Your task to perform on an android device: delete the emails in spam in the gmail app Image 0: 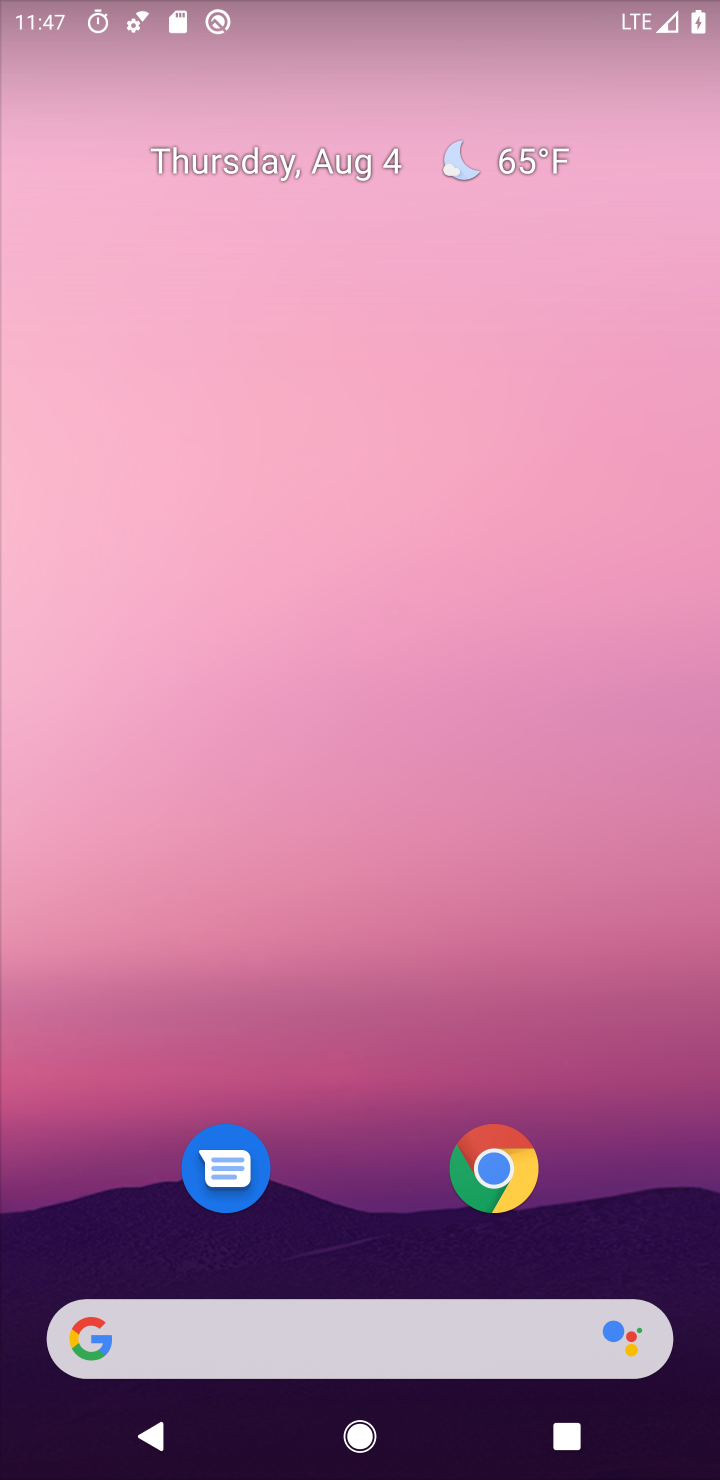
Step 0: drag from (389, 1000) to (467, 82)
Your task to perform on an android device: delete the emails in spam in the gmail app Image 1: 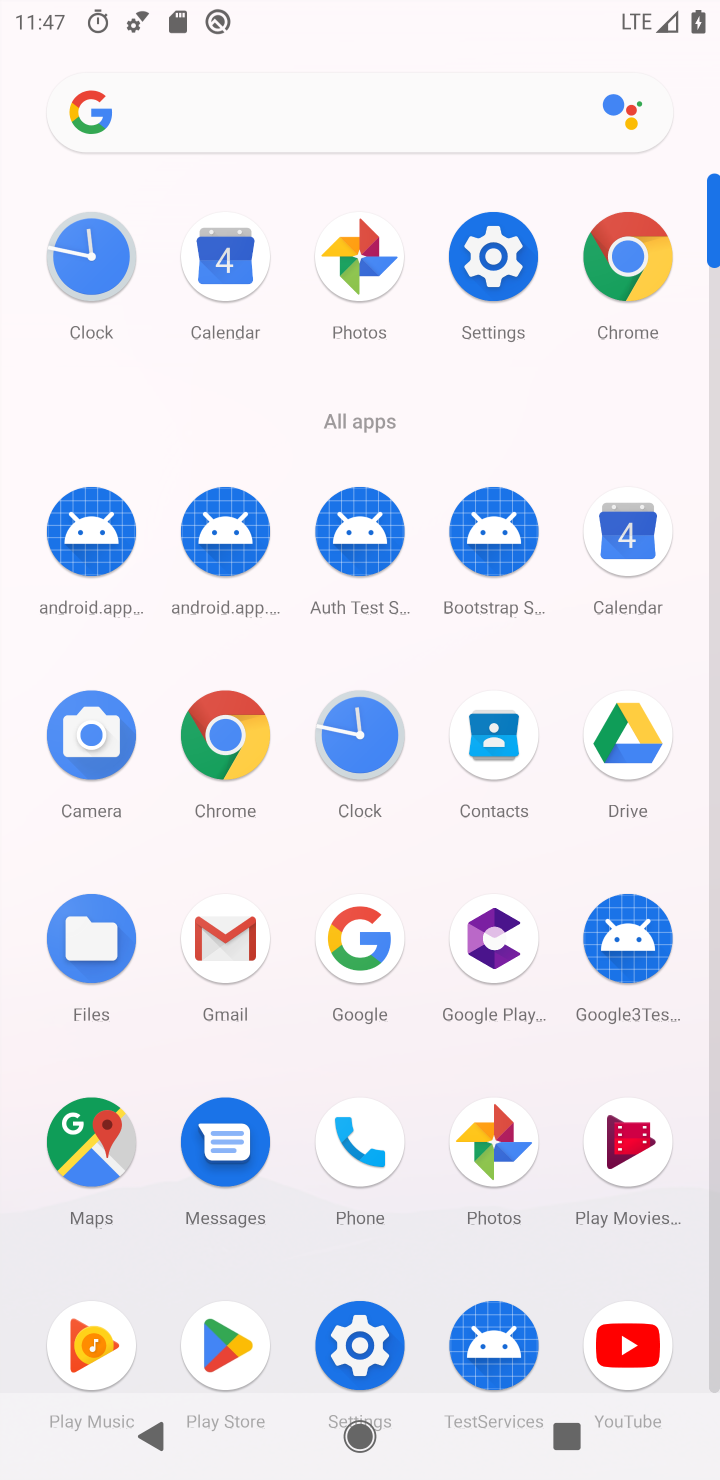
Step 1: click (212, 909)
Your task to perform on an android device: delete the emails in spam in the gmail app Image 2: 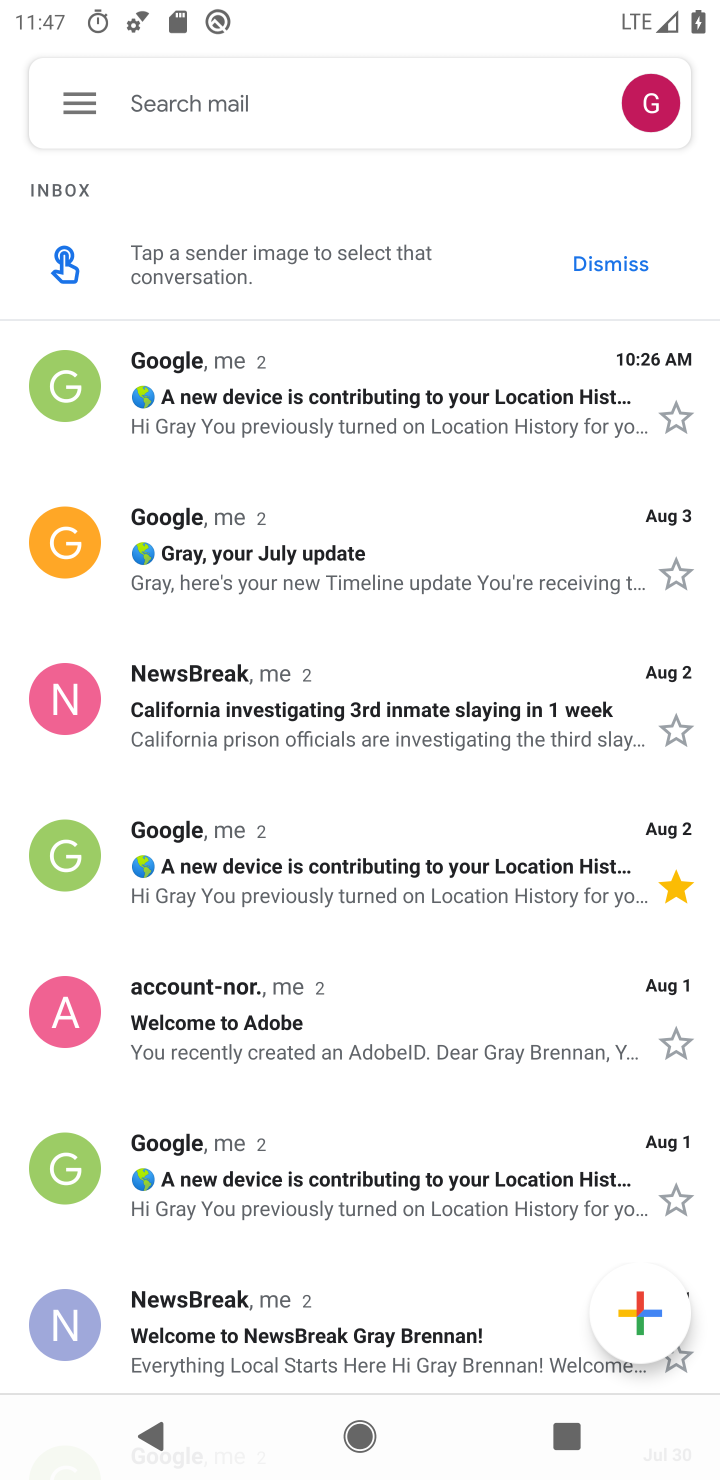
Step 2: click (62, 115)
Your task to perform on an android device: delete the emails in spam in the gmail app Image 3: 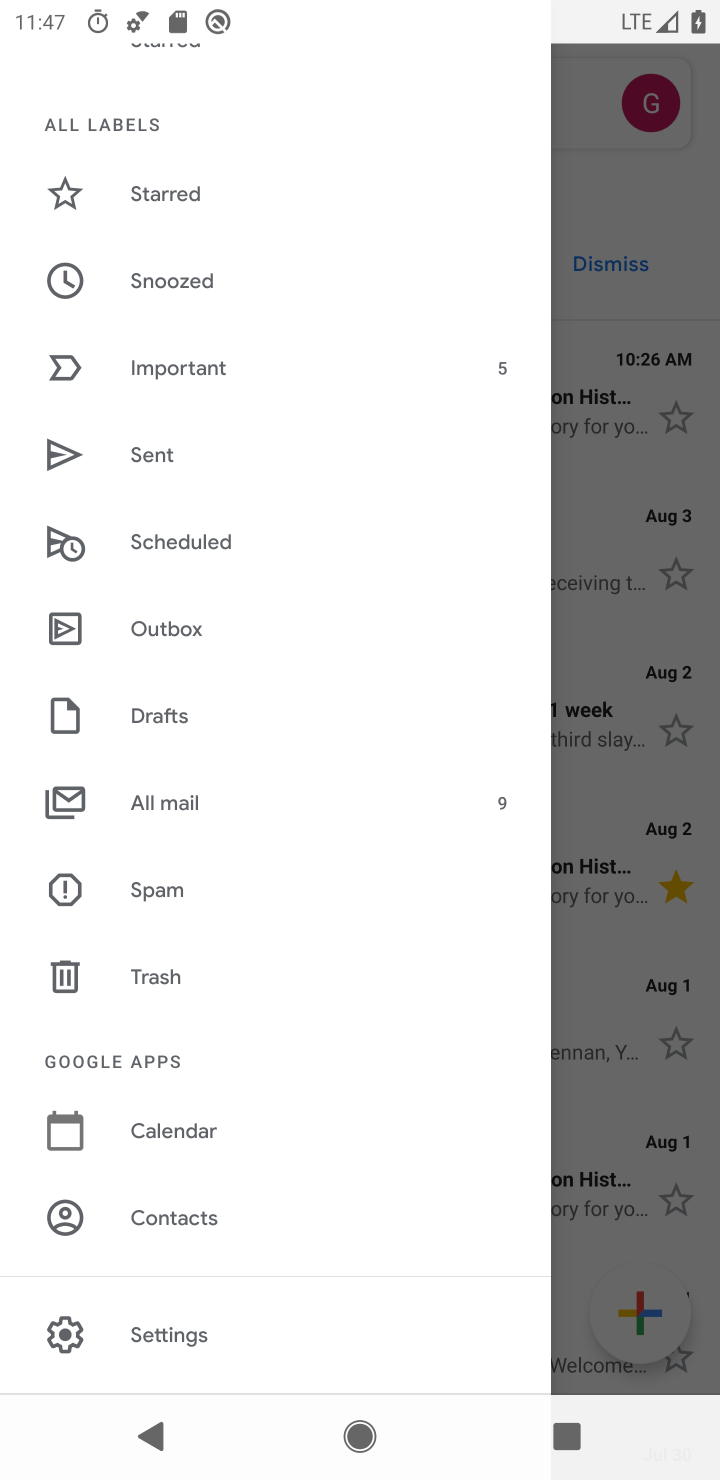
Step 3: click (178, 879)
Your task to perform on an android device: delete the emails in spam in the gmail app Image 4: 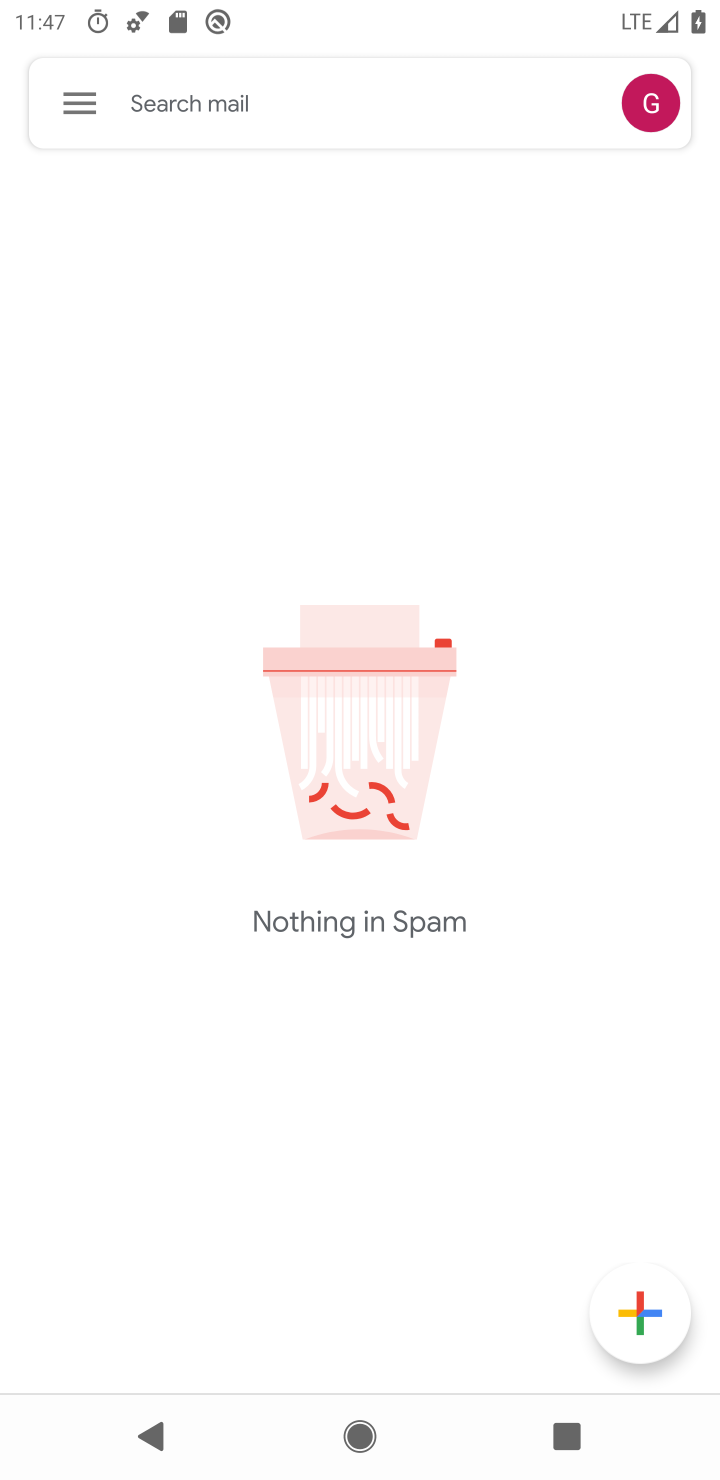
Step 4: task complete